Your task to perform on an android device: turn on airplane mode Image 0: 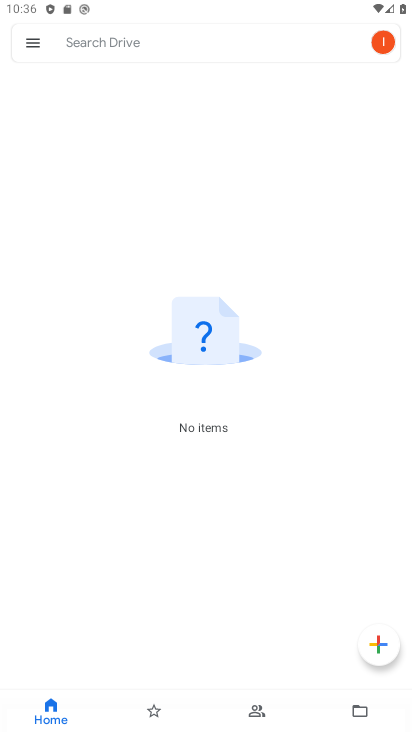
Step 0: press home button
Your task to perform on an android device: turn on airplane mode Image 1: 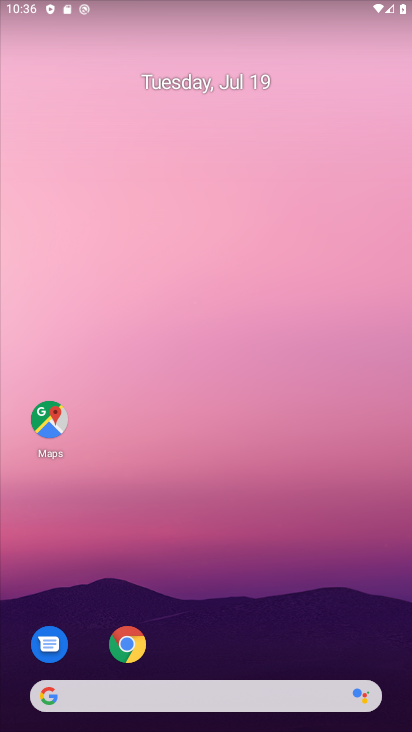
Step 1: drag from (226, 580) to (173, 116)
Your task to perform on an android device: turn on airplane mode Image 2: 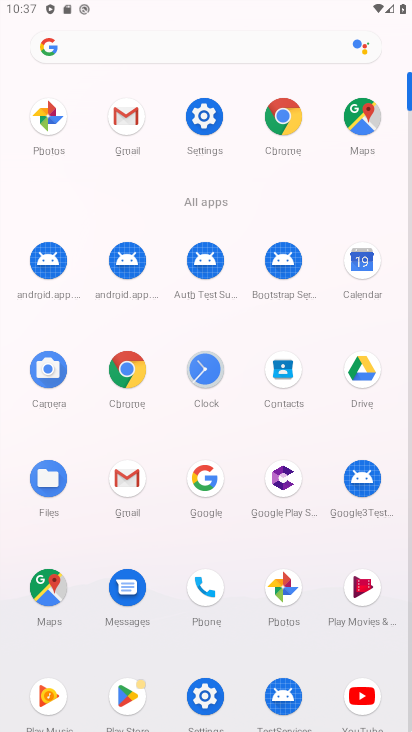
Step 2: click (204, 113)
Your task to perform on an android device: turn on airplane mode Image 3: 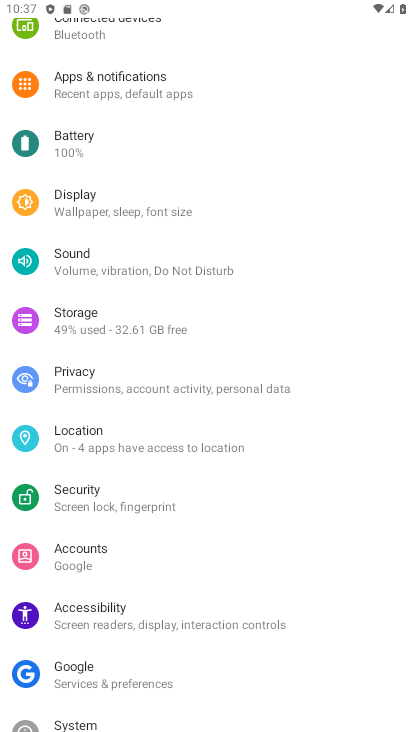
Step 3: drag from (234, 86) to (312, 325)
Your task to perform on an android device: turn on airplane mode Image 4: 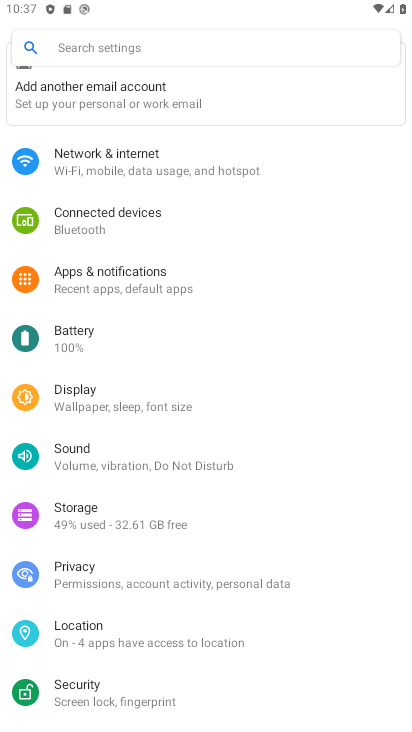
Step 4: click (111, 159)
Your task to perform on an android device: turn on airplane mode Image 5: 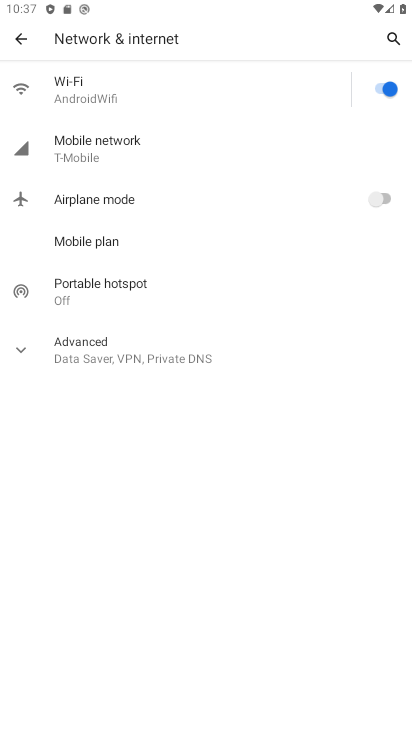
Step 5: click (380, 197)
Your task to perform on an android device: turn on airplane mode Image 6: 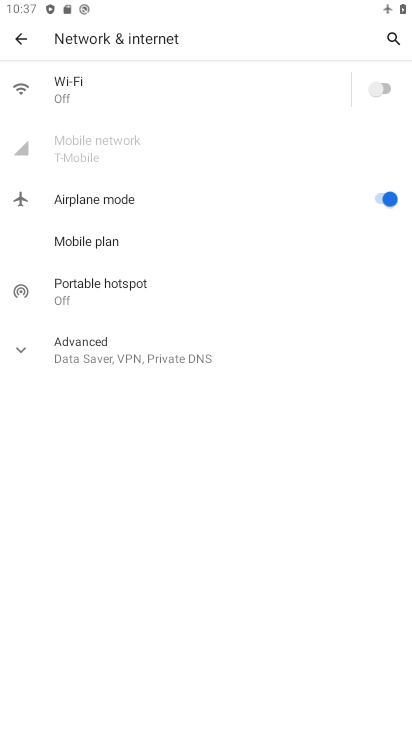
Step 6: task complete